Your task to perform on an android device: Go to battery settings Image 0: 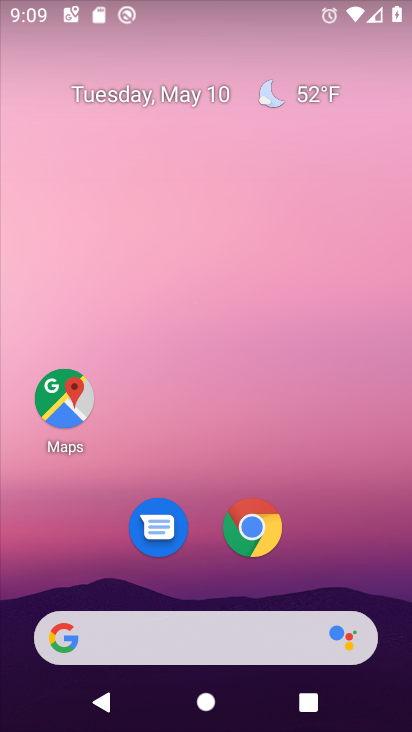
Step 0: drag from (350, 568) to (134, 155)
Your task to perform on an android device: Go to battery settings Image 1: 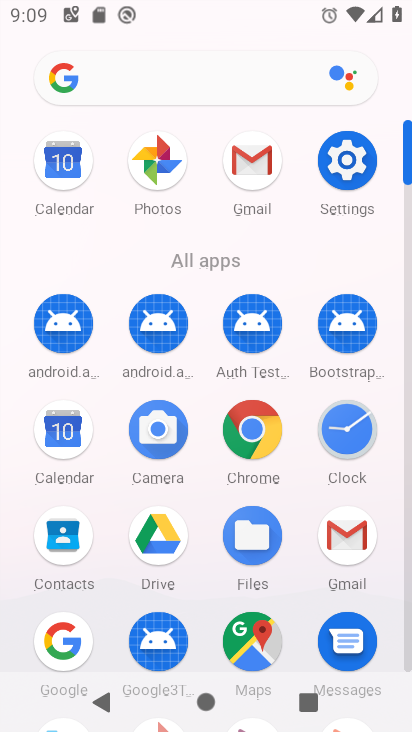
Step 1: click (345, 170)
Your task to perform on an android device: Go to battery settings Image 2: 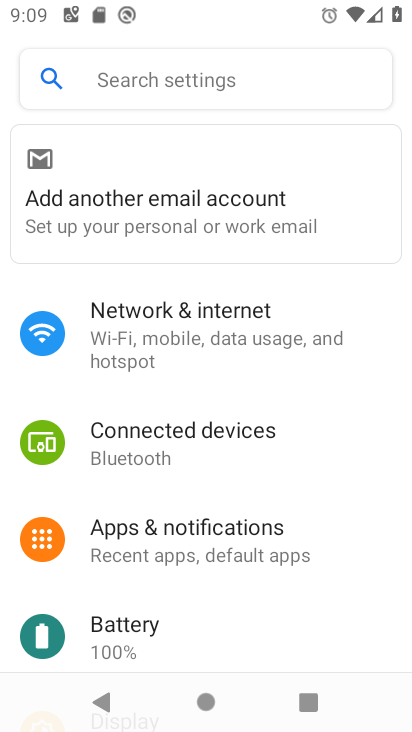
Step 2: click (124, 633)
Your task to perform on an android device: Go to battery settings Image 3: 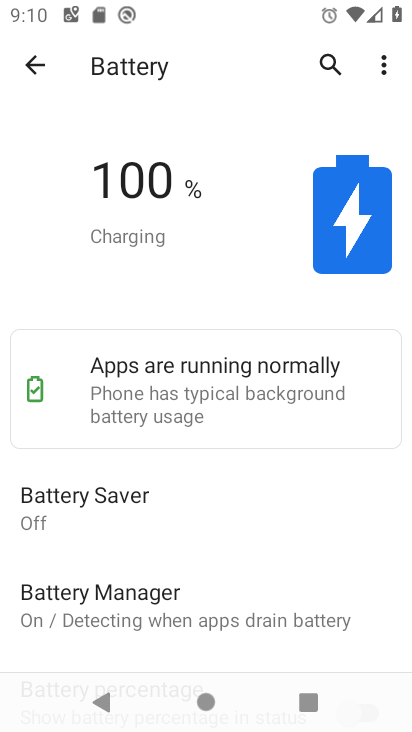
Step 3: task complete